Your task to perform on an android device: Go to Android settings Image 0: 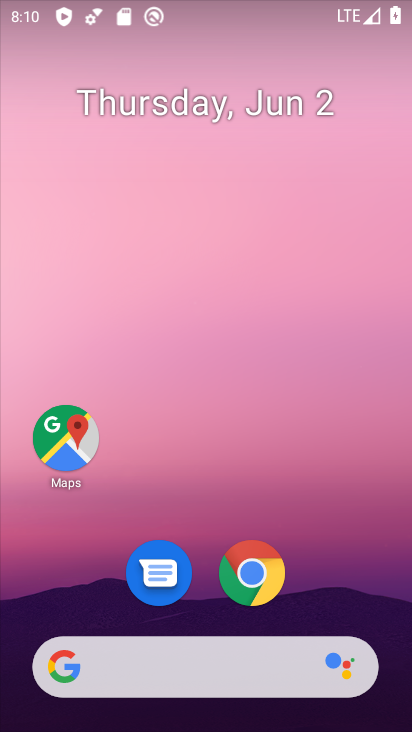
Step 0: click (392, 118)
Your task to perform on an android device: Go to Android settings Image 1: 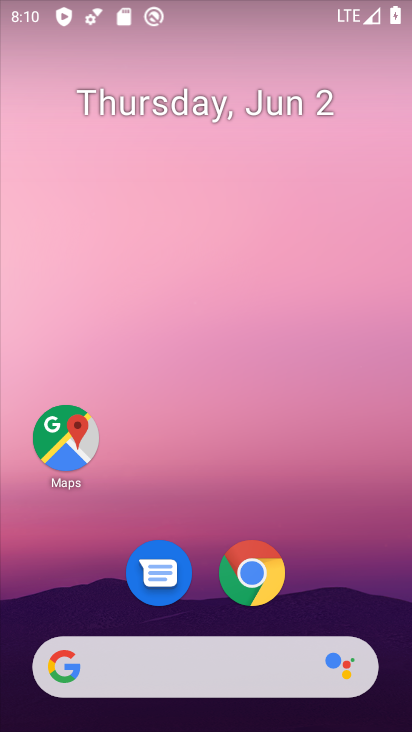
Step 1: drag from (371, 588) to (410, 9)
Your task to perform on an android device: Go to Android settings Image 2: 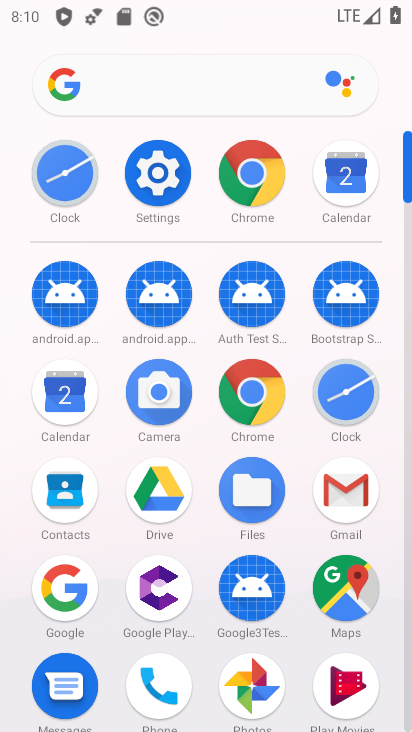
Step 2: click (151, 164)
Your task to perform on an android device: Go to Android settings Image 3: 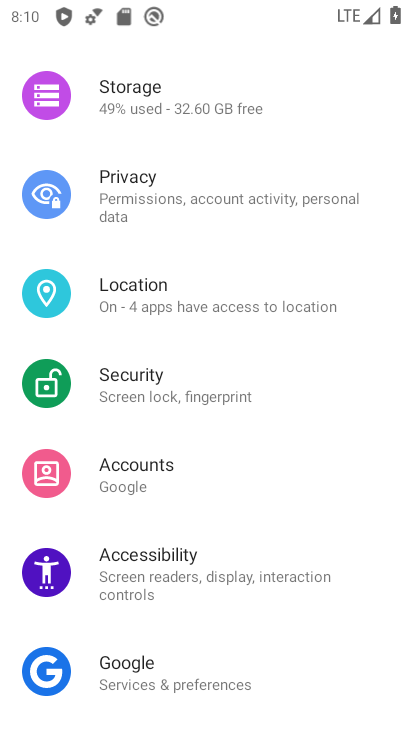
Step 3: task complete